Your task to perform on an android device: Search for "razer blackwidow" on bestbuy, select the first entry, and add it to the cart. Image 0: 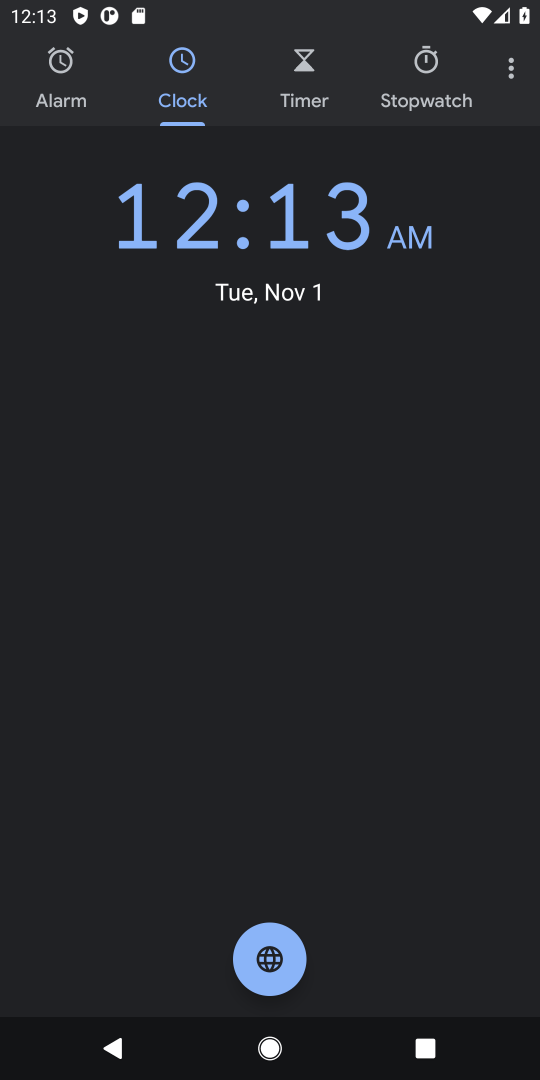
Step 0: press home button
Your task to perform on an android device: Search for "razer blackwidow" on bestbuy, select the first entry, and add it to the cart. Image 1: 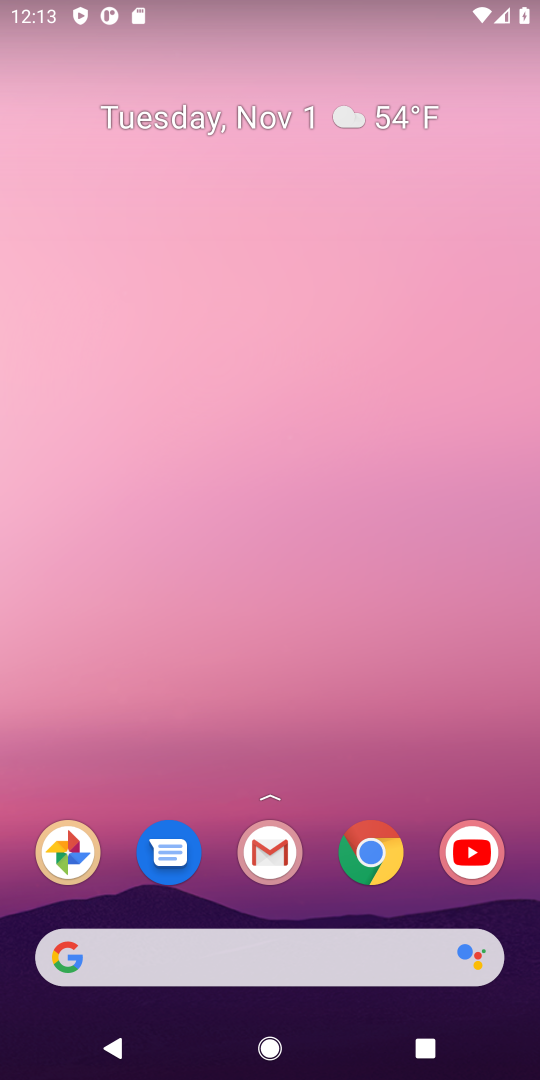
Step 1: click (371, 860)
Your task to perform on an android device: Search for "razer blackwidow" on bestbuy, select the first entry, and add it to the cart. Image 2: 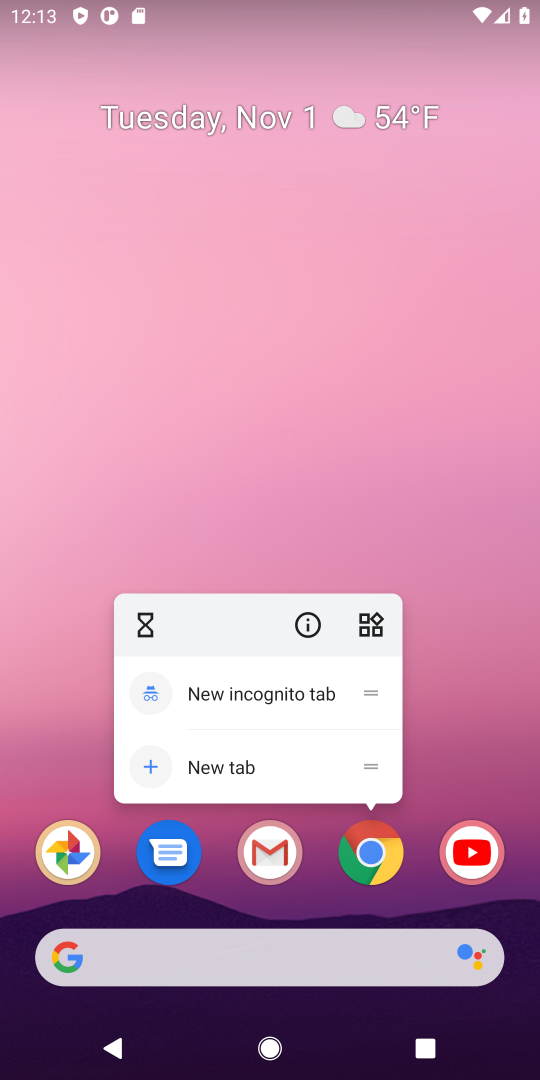
Step 2: click (378, 855)
Your task to perform on an android device: Search for "razer blackwidow" on bestbuy, select the first entry, and add it to the cart. Image 3: 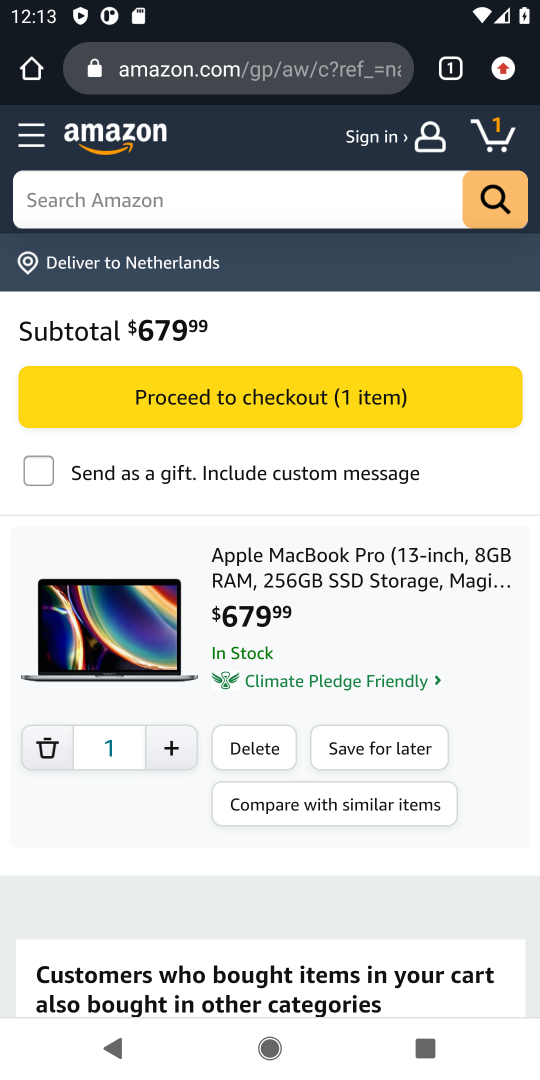
Step 3: click (274, 85)
Your task to perform on an android device: Search for "razer blackwidow" on bestbuy, select the first entry, and add it to the cart. Image 4: 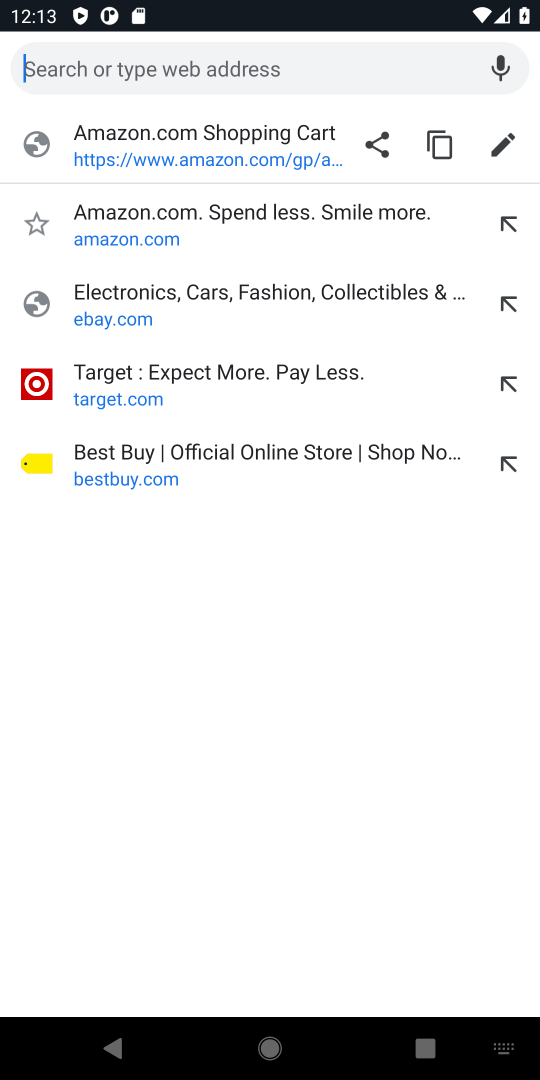
Step 4: type "bestbuy"
Your task to perform on an android device: Search for "razer blackwidow" on bestbuy, select the first entry, and add it to the cart. Image 5: 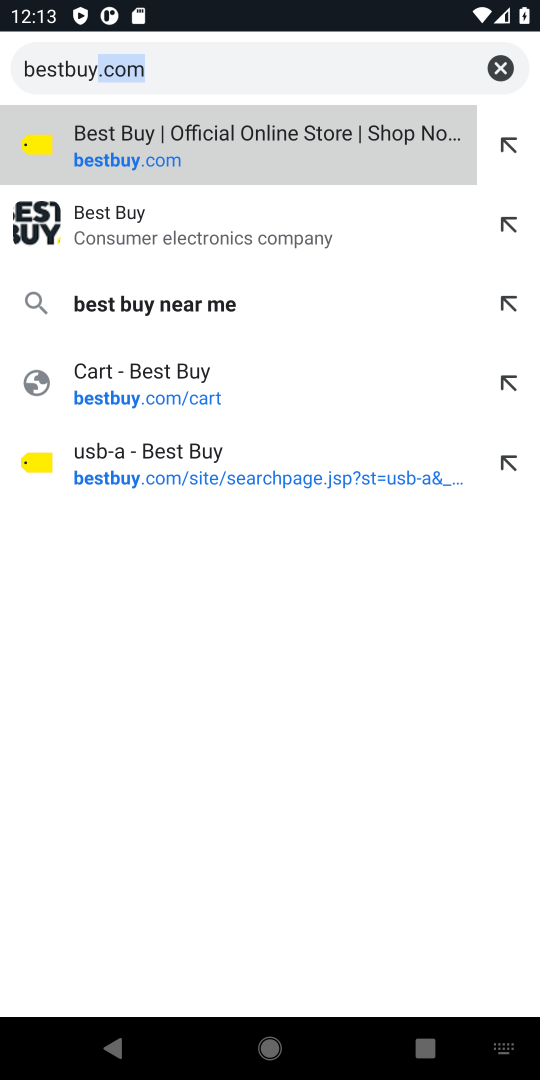
Step 5: press enter
Your task to perform on an android device: Search for "razer blackwidow" on bestbuy, select the first entry, and add it to the cart. Image 6: 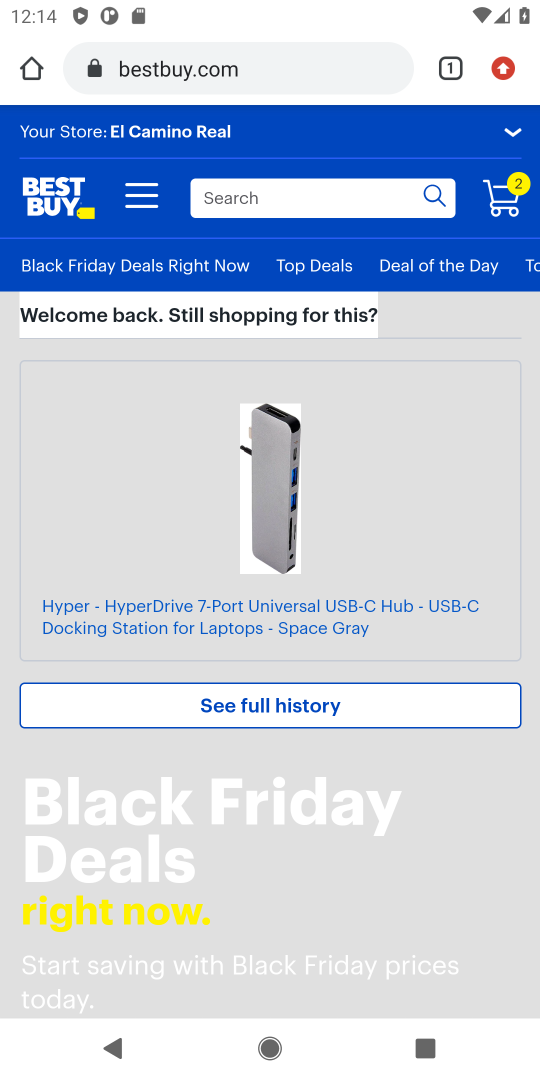
Step 6: click (285, 195)
Your task to perform on an android device: Search for "razer blackwidow" on bestbuy, select the first entry, and add it to the cart. Image 7: 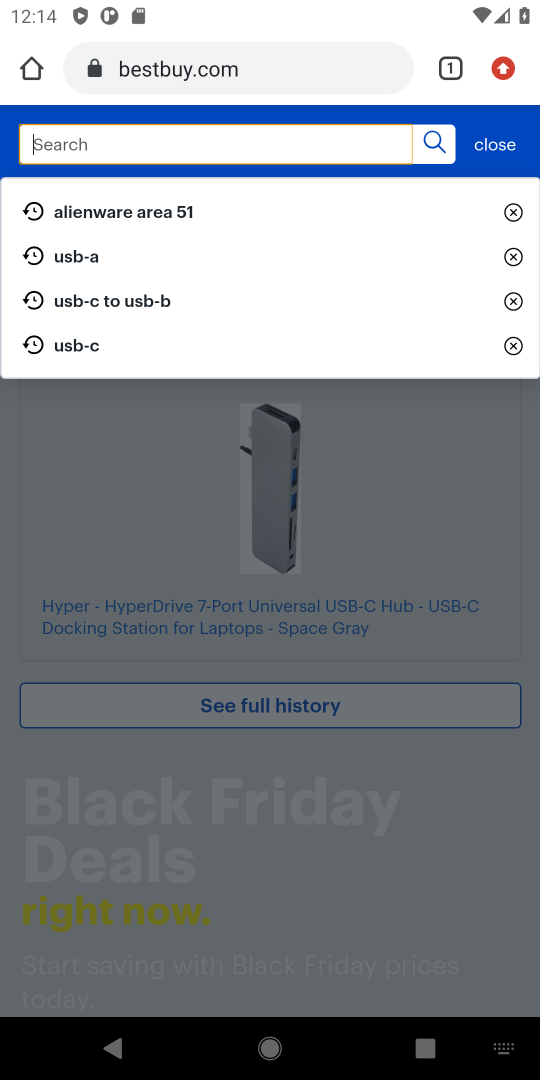
Step 7: type "razer blackwidow"
Your task to perform on an android device: Search for "razer blackwidow" on bestbuy, select the first entry, and add it to the cart. Image 8: 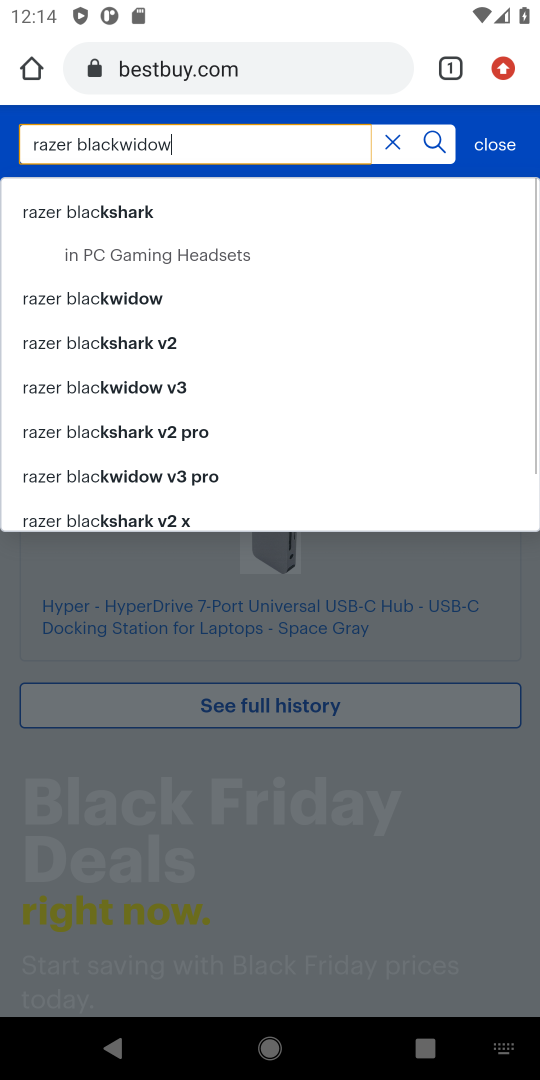
Step 8: type ""
Your task to perform on an android device: Search for "razer blackwidow" on bestbuy, select the first entry, and add it to the cart. Image 9: 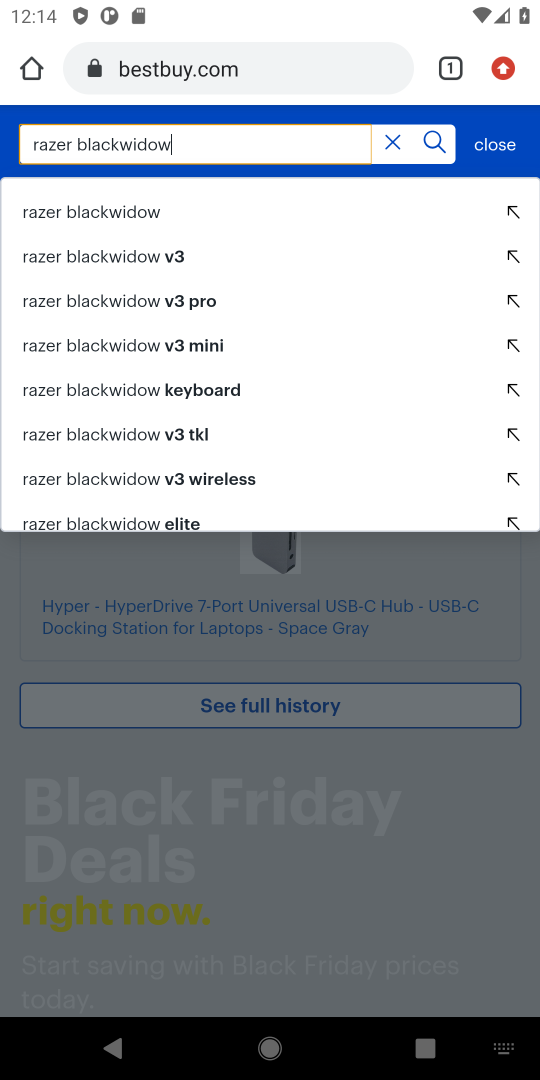
Step 9: press enter
Your task to perform on an android device: Search for "razer blackwidow" on bestbuy, select the first entry, and add it to the cart. Image 10: 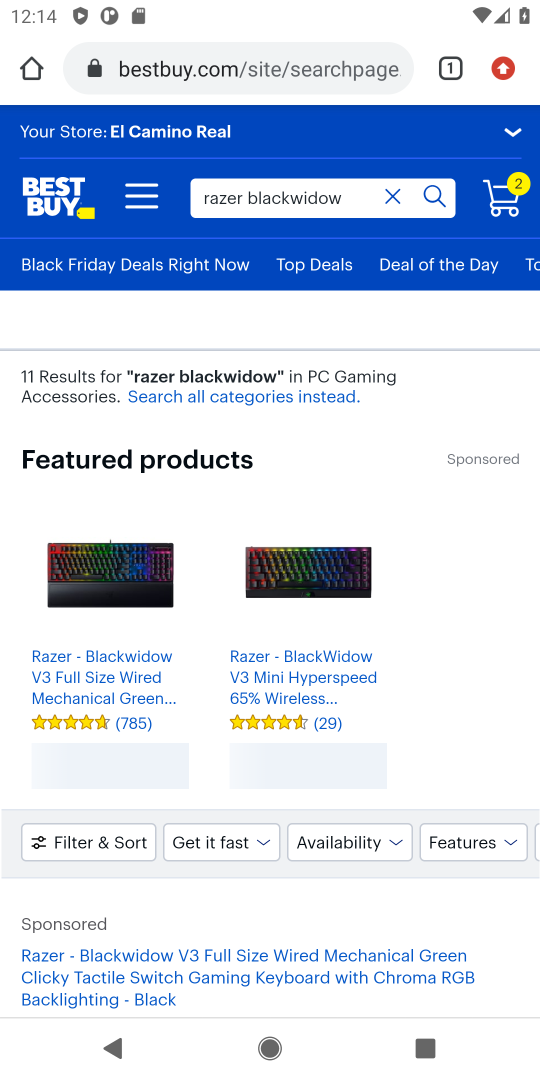
Step 10: click (115, 678)
Your task to perform on an android device: Search for "razer blackwidow" on bestbuy, select the first entry, and add it to the cart. Image 11: 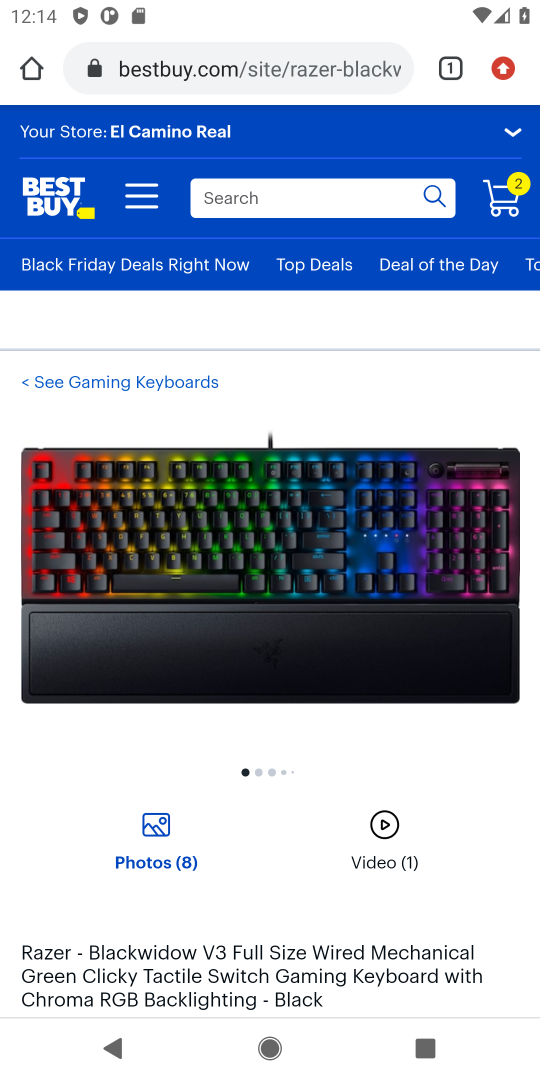
Step 11: drag from (359, 888) to (323, 368)
Your task to perform on an android device: Search for "razer blackwidow" on bestbuy, select the first entry, and add it to the cart. Image 12: 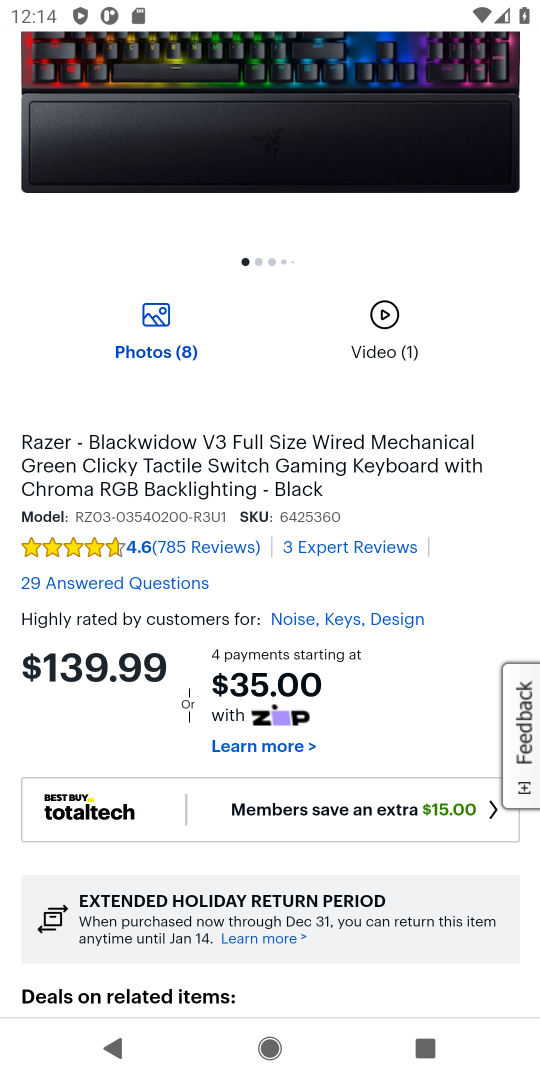
Step 12: drag from (408, 878) to (334, 421)
Your task to perform on an android device: Search for "razer blackwidow" on bestbuy, select the first entry, and add it to the cart. Image 13: 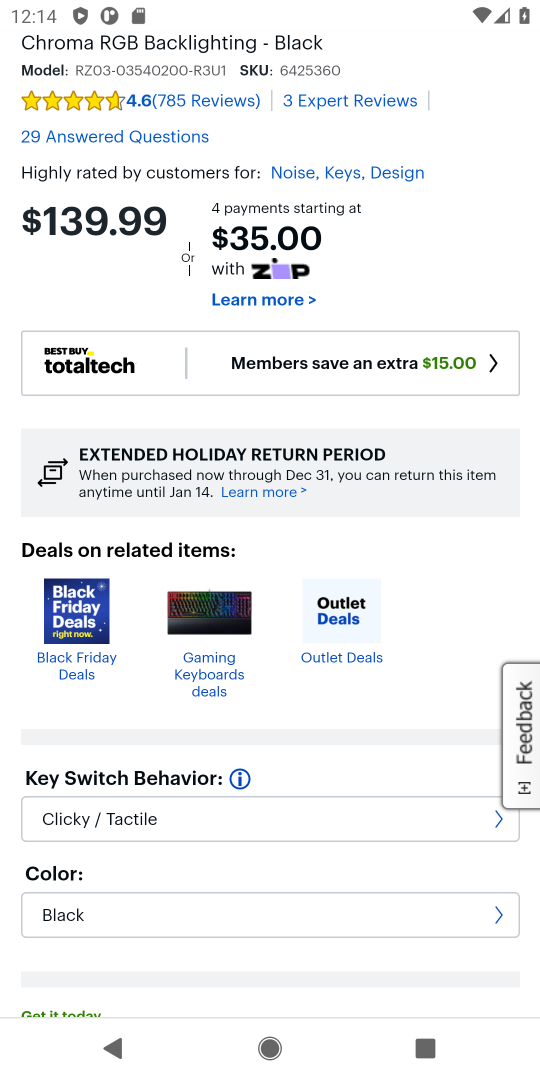
Step 13: drag from (304, 876) to (286, 422)
Your task to perform on an android device: Search for "razer blackwidow" on bestbuy, select the first entry, and add it to the cart. Image 14: 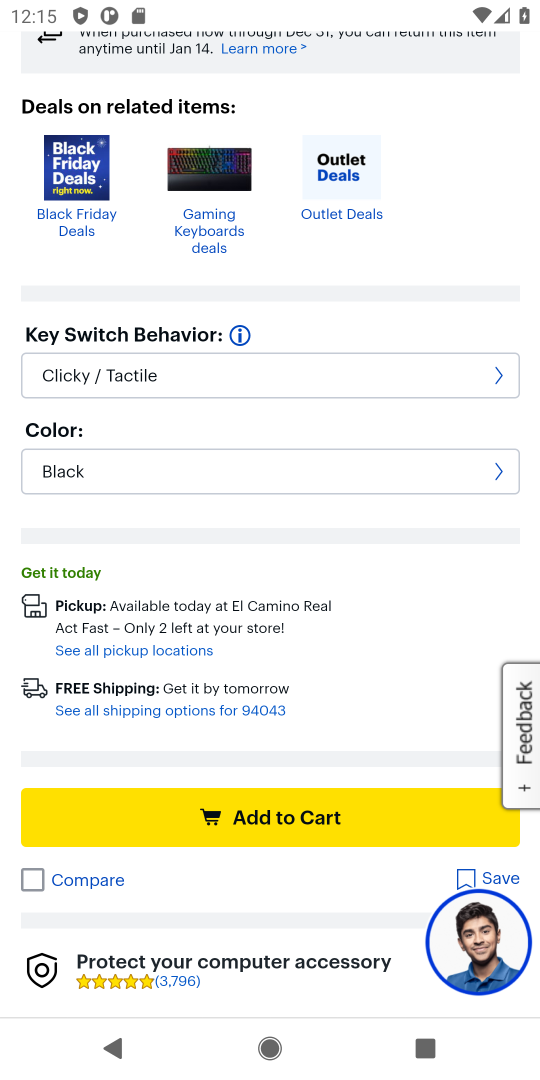
Step 14: click (310, 817)
Your task to perform on an android device: Search for "razer blackwidow" on bestbuy, select the first entry, and add it to the cart. Image 15: 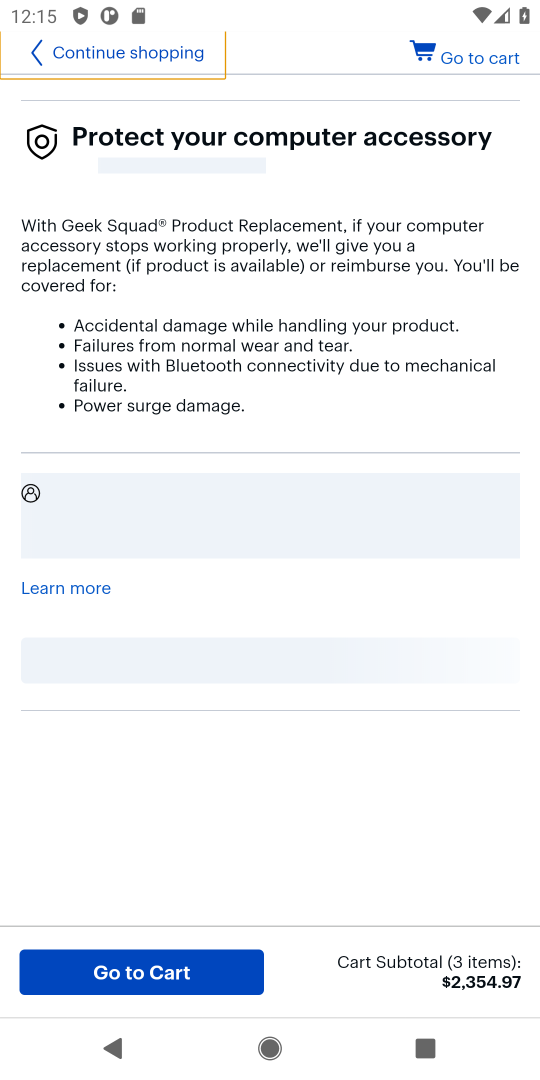
Step 15: click (198, 985)
Your task to perform on an android device: Search for "razer blackwidow" on bestbuy, select the first entry, and add it to the cart. Image 16: 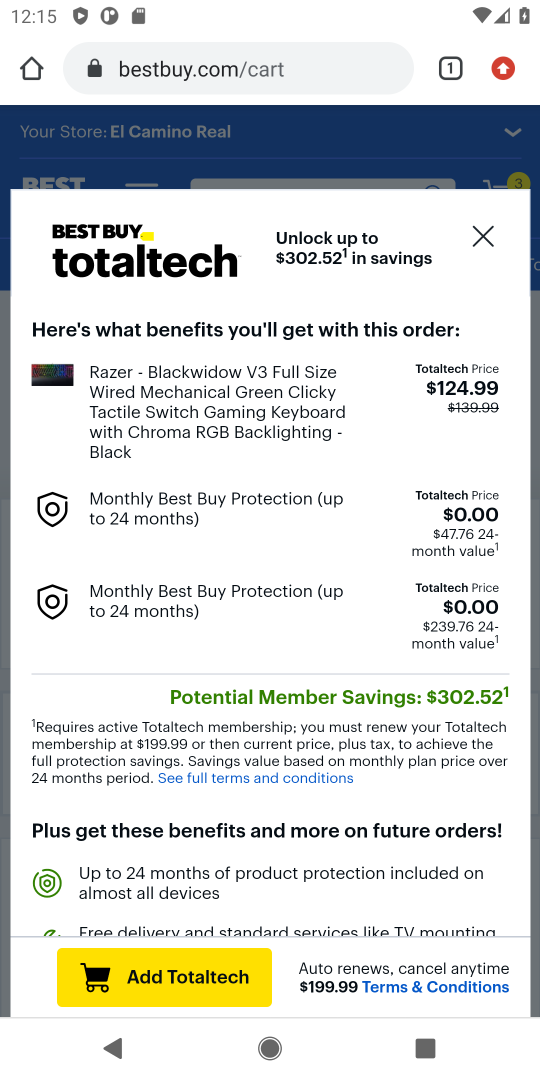
Step 16: click (477, 241)
Your task to perform on an android device: Search for "razer blackwidow" on bestbuy, select the first entry, and add it to the cart. Image 17: 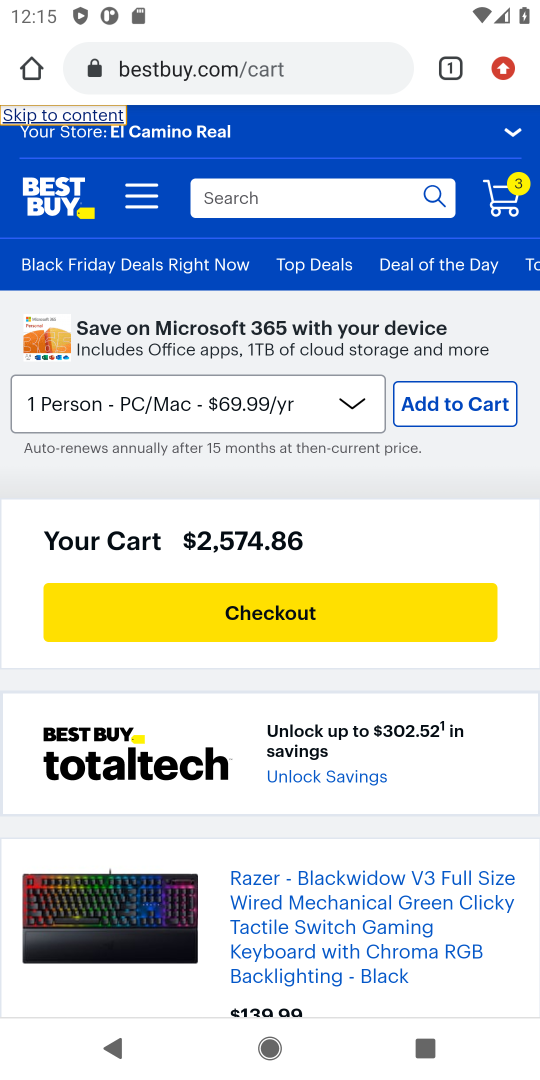
Step 17: task complete